Your task to perform on an android device: turn off notifications in google photos Image 0: 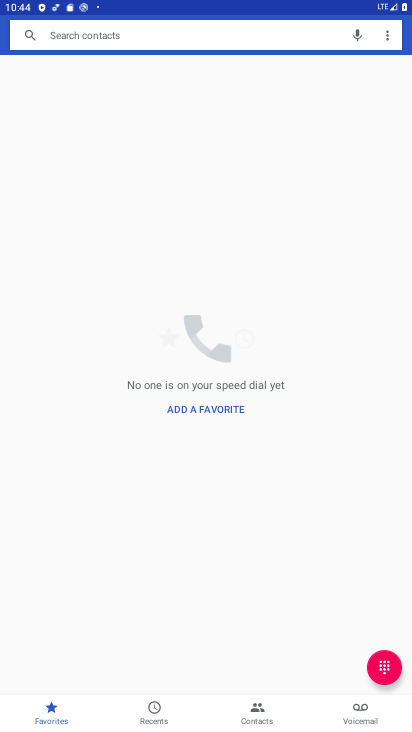
Step 0: press home button
Your task to perform on an android device: turn off notifications in google photos Image 1: 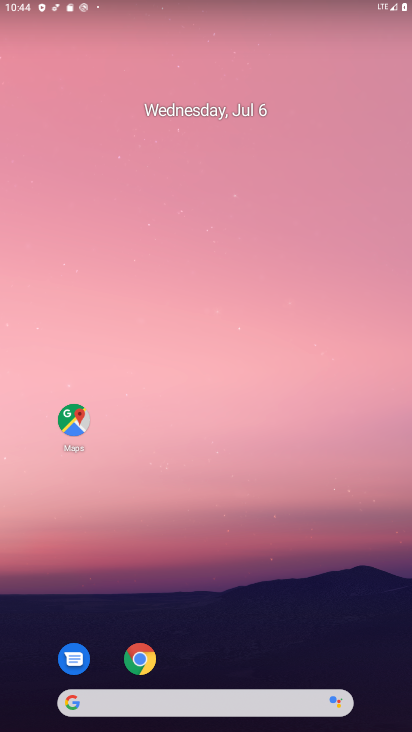
Step 1: drag from (189, 666) to (205, 88)
Your task to perform on an android device: turn off notifications in google photos Image 2: 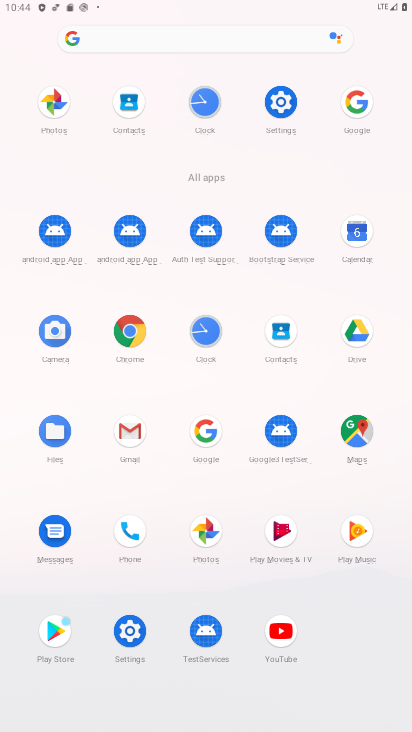
Step 2: click (210, 532)
Your task to perform on an android device: turn off notifications in google photos Image 3: 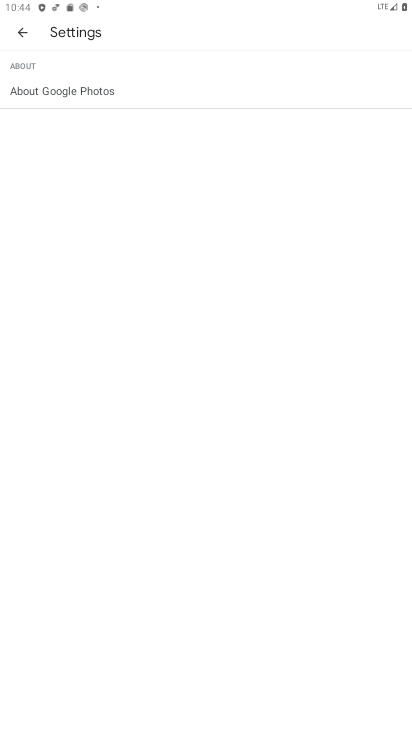
Step 3: click (24, 36)
Your task to perform on an android device: turn off notifications in google photos Image 4: 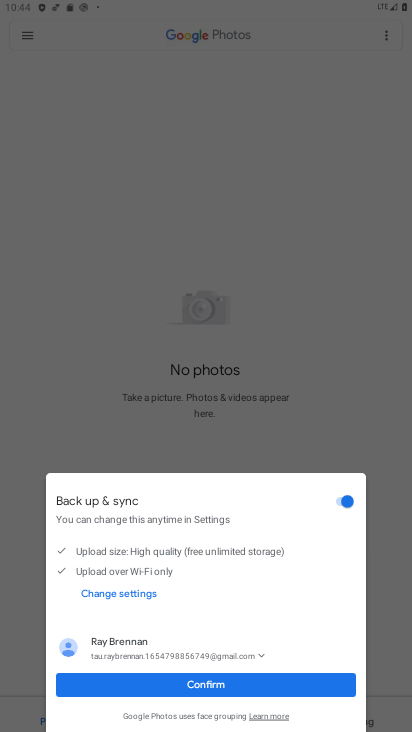
Step 4: click (213, 688)
Your task to perform on an android device: turn off notifications in google photos Image 5: 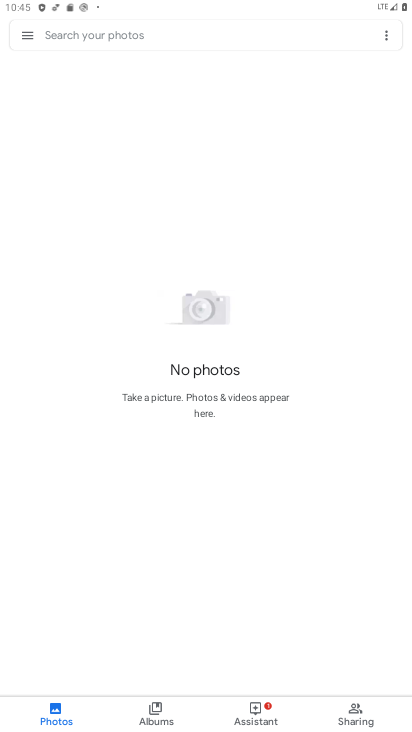
Step 5: click (31, 80)
Your task to perform on an android device: turn off notifications in google photos Image 6: 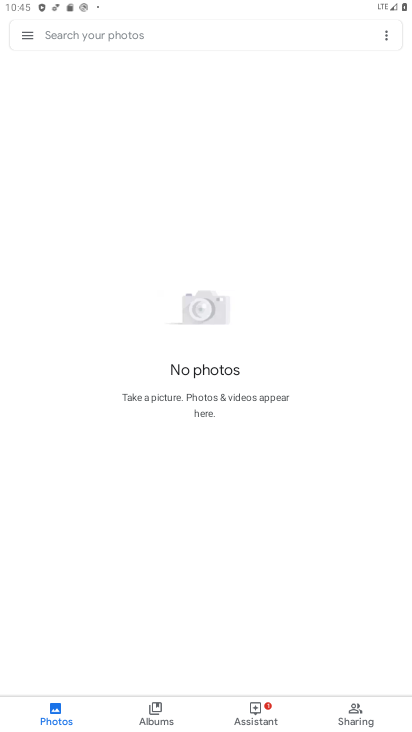
Step 6: click (31, 40)
Your task to perform on an android device: turn off notifications in google photos Image 7: 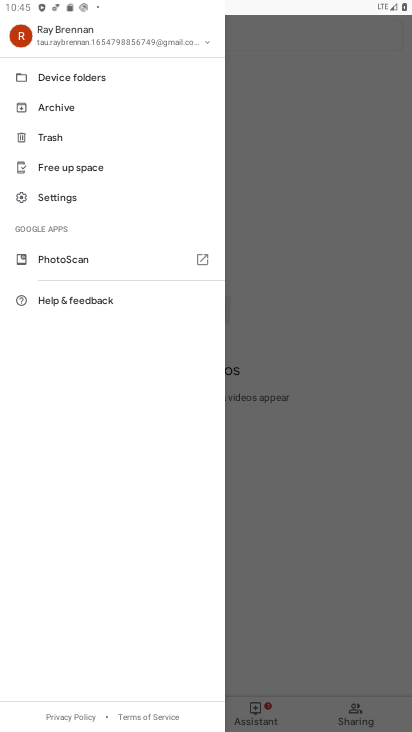
Step 7: click (58, 200)
Your task to perform on an android device: turn off notifications in google photos Image 8: 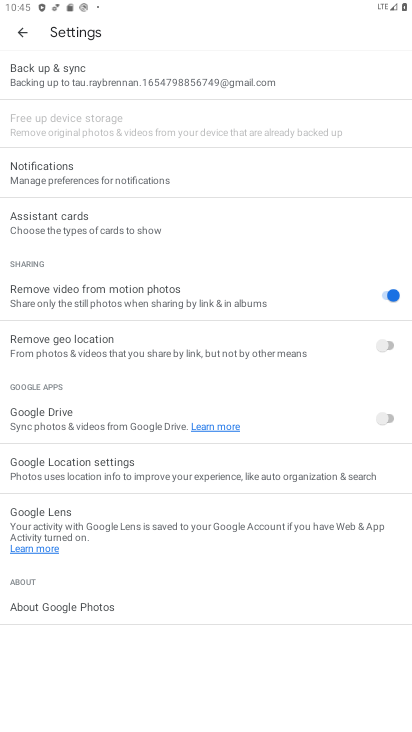
Step 8: click (61, 180)
Your task to perform on an android device: turn off notifications in google photos Image 9: 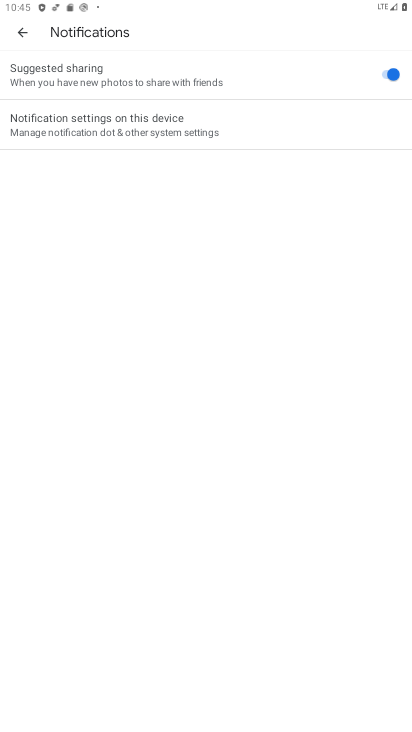
Step 9: click (222, 125)
Your task to perform on an android device: turn off notifications in google photos Image 10: 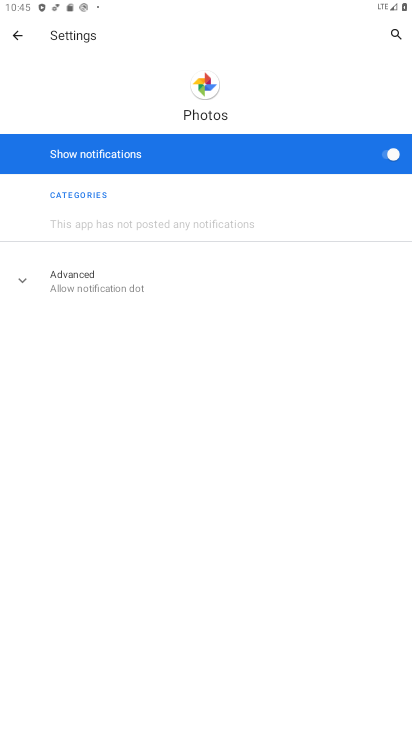
Step 10: click (384, 164)
Your task to perform on an android device: turn off notifications in google photos Image 11: 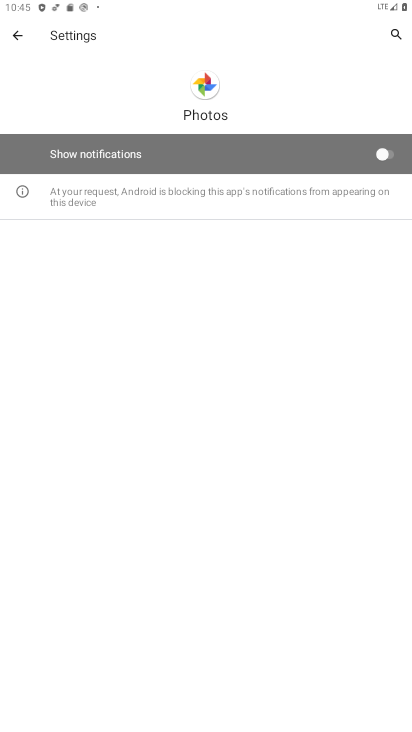
Step 11: task complete